Your task to perform on an android device: change the clock display to digital Image 0: 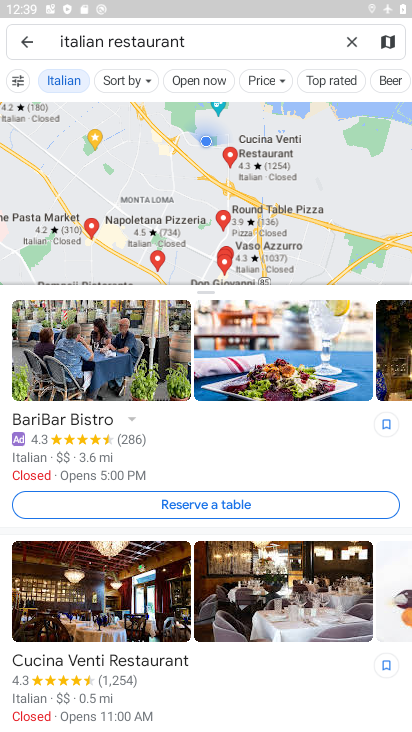
Step 0: press home button
Your task to perform on an android device: change the clock display to digital Image 1: 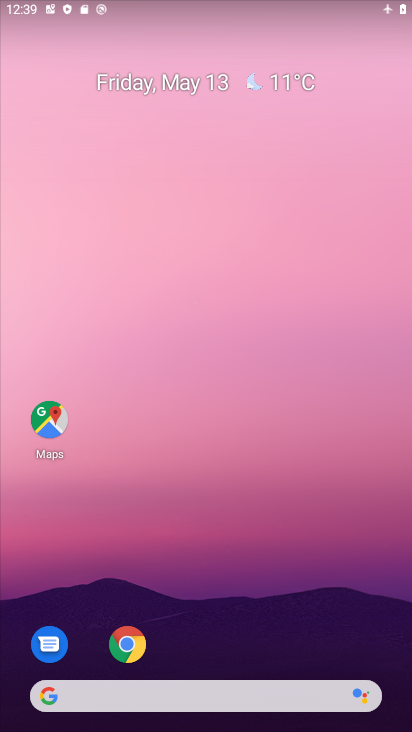
Step 1: drag from (232, 726) to (219, 117)
Your task to perform on an android device: change the clock display to digital Image 2: 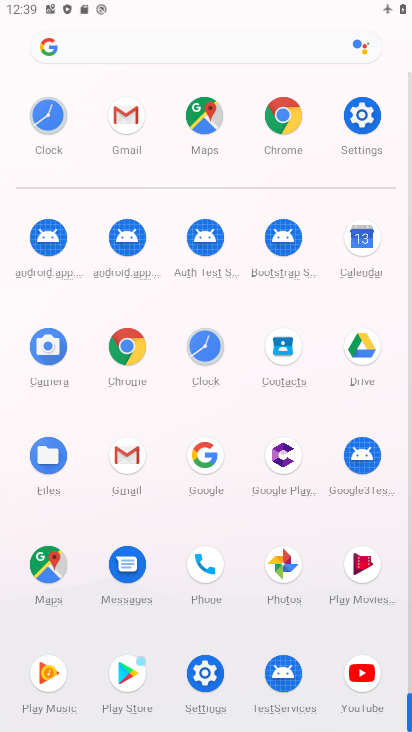
Step 2: click (204, 348)
Your task to perform on an android device: change the clock display to digital Image 3: 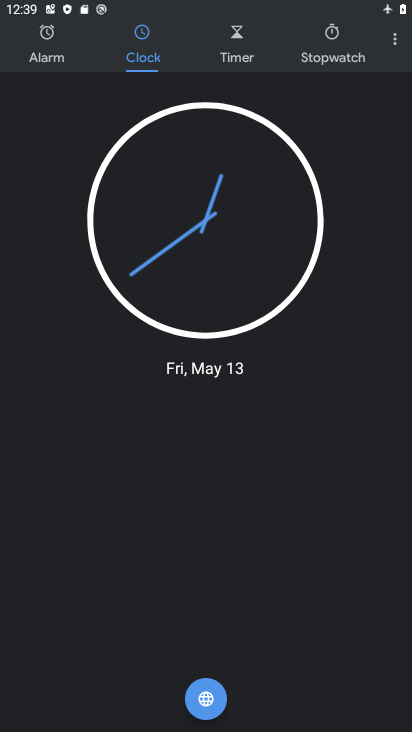
Step 3: click (394, 42)
Your task to perform on an android device: change the clock display to digital Image 4: 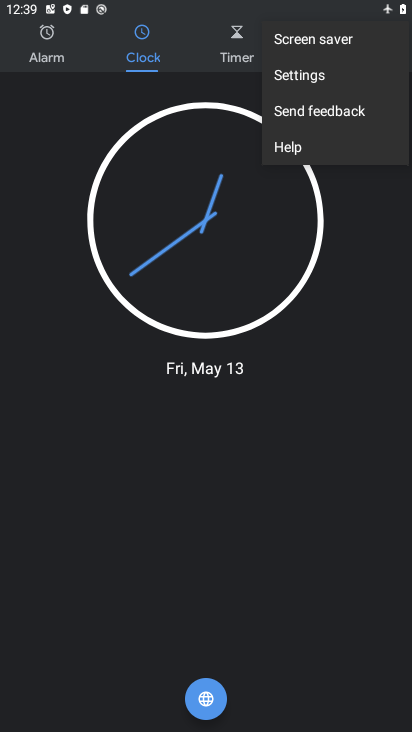
Step 4: click (307, 78)
Your task to perform on an android device: change the clock display to digital Image 5: 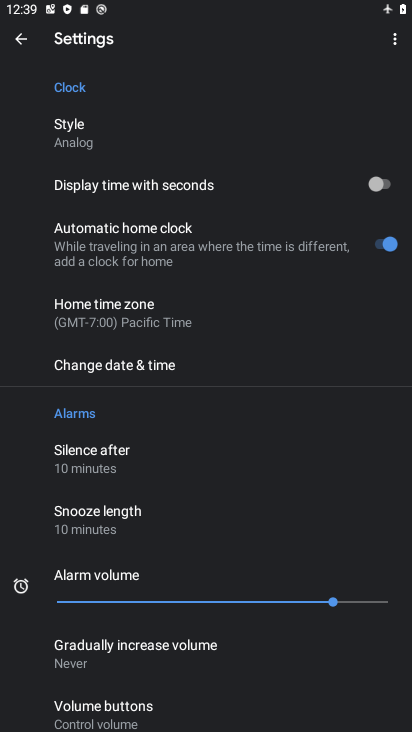
Step 5: click (386, 186)
Your task to perform on an android device: change the clock display to digital Image 6: 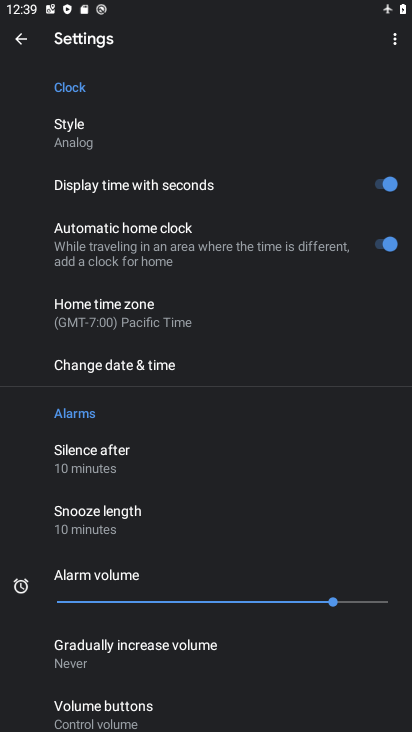
Step 6: task complete